Your task to perform on an android device: Open calendar and show me the fourth week of next month Image 0: 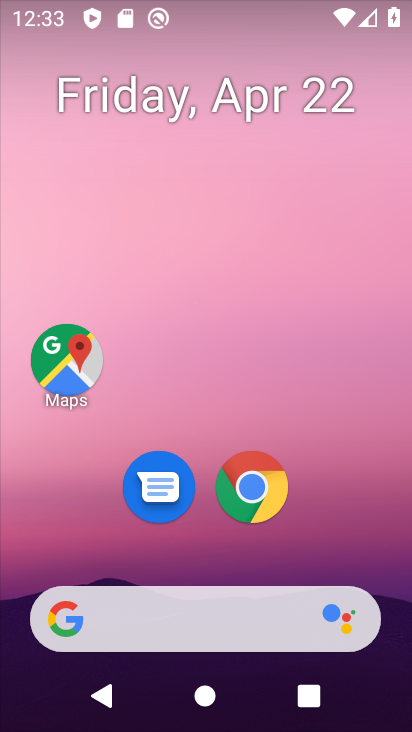
Step 0: drag from (210, 544) to (229, 146)
Your task to perform on an android device: Open calendar and show me the fourth week of next month Image 1: 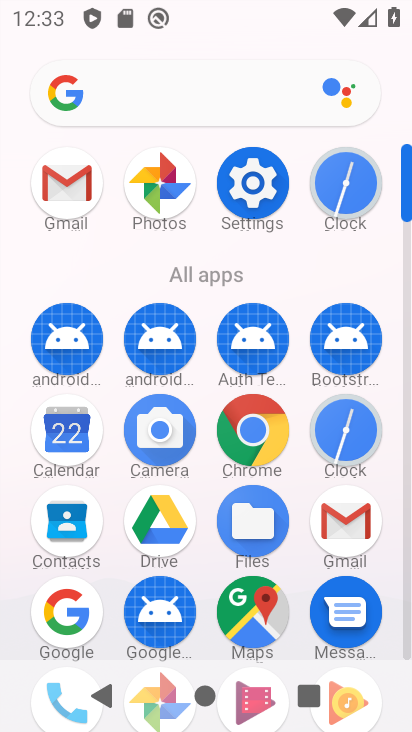
Step 1: drag from (300, 491) to (314, 250)
Your task to perform on an android device: Open calendar and show me the fourth week of next month Image 2: 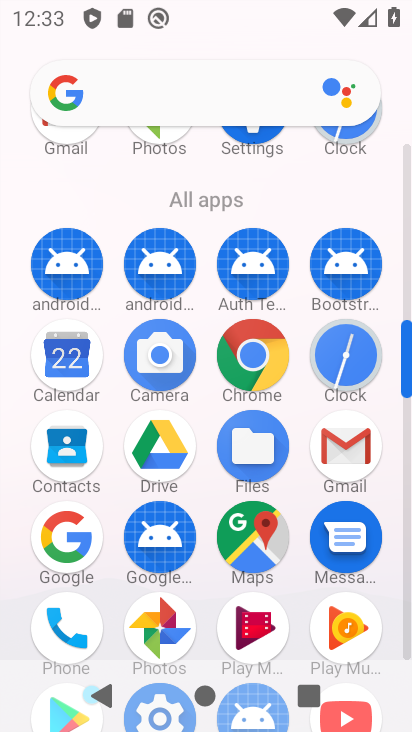
Step 2: click (52, 376)
Your task to perform on an android device: Open calendar and show me the fourth week of next month Image 3: 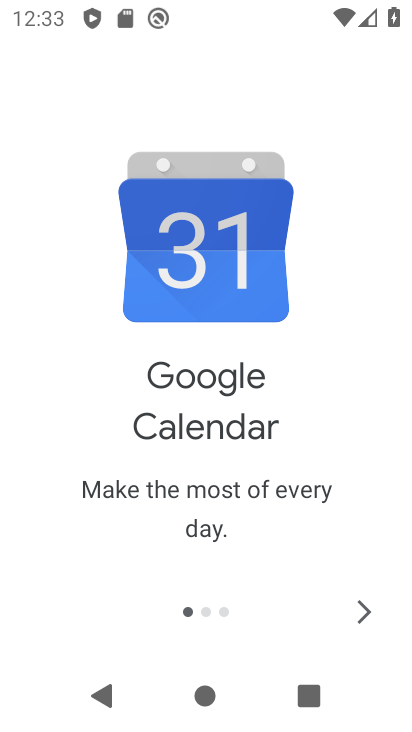
Step 3: click (361, 601)
Your task to perform on an android device: Open calendar and show me the fourth week of next month Image 4: 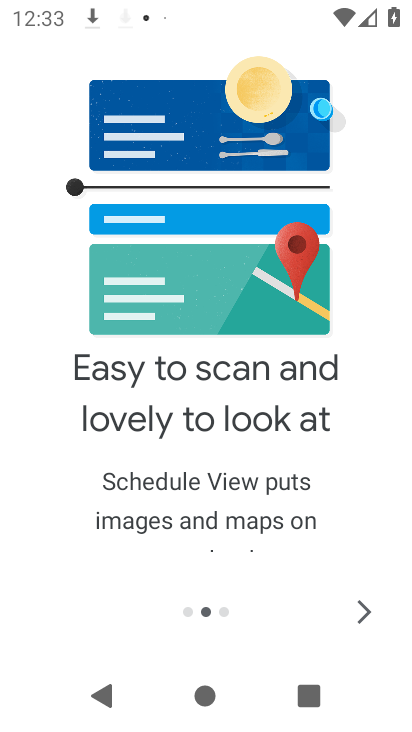
Step 4: click (361, 601)
Your task to perform on an android device: Open calendar and show me the fourth week of next month Image 5: 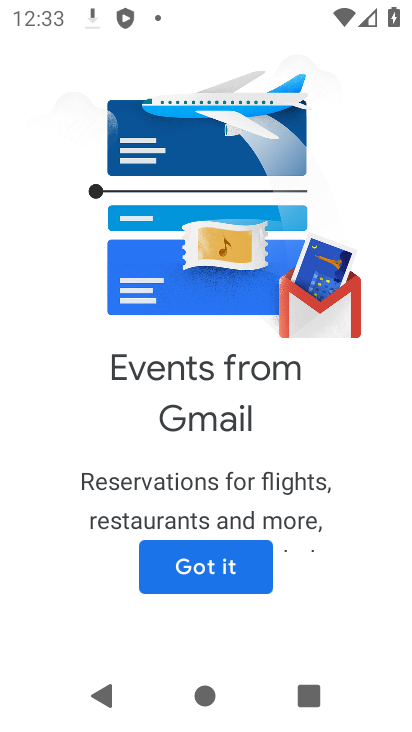
Step 5: click (247, 566)
Your task to perform on an android device: Open calendar and show me the fourth week of next month Image 6: 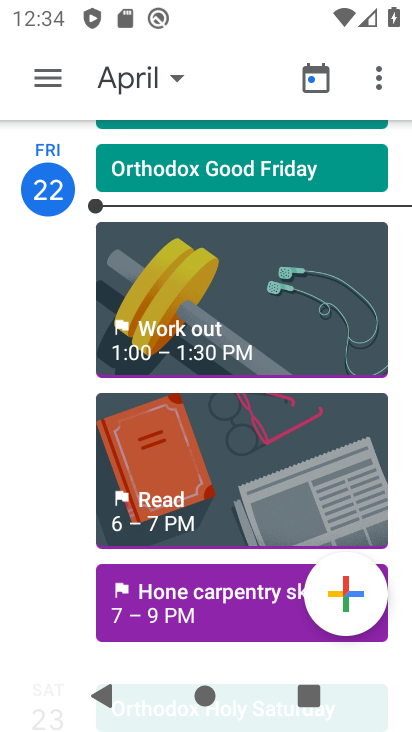
Step 6: click (142, 67)
Your task to perform on an android device: Open calendar and show me the fourth week of next month Image 7: 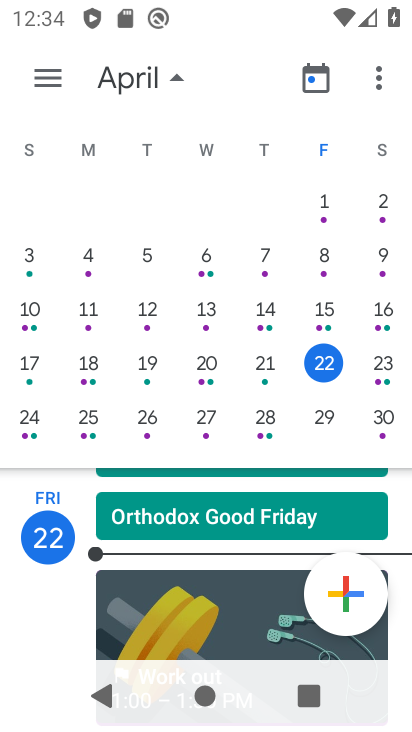
Step 7: drag from (353, 297) to (23, 258)
Your task to perform on an android device: Open calendar and show me the fourth week of next month Image 8: 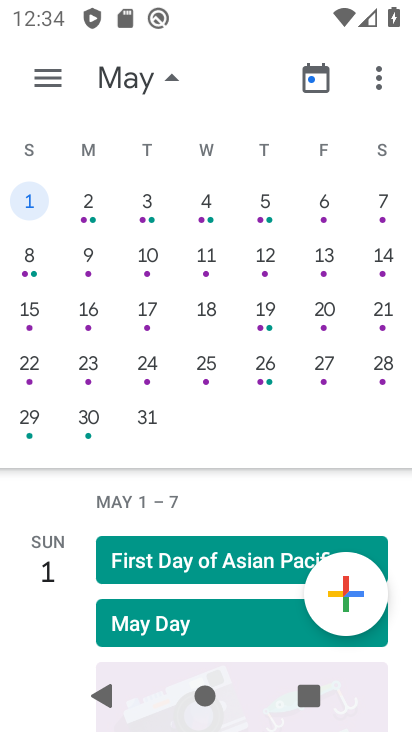
Step 8: click (87, 357)
Your task to perform on an android device: Open calendar and show me the fourth week of next month Image 9: 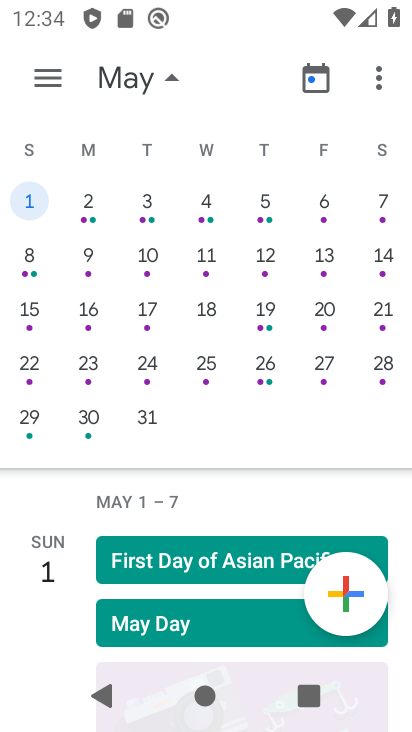
Step 9: click (88, 363)
Your task to perform on an android device: Open calendar and show me the fourth week of next month Image 10: 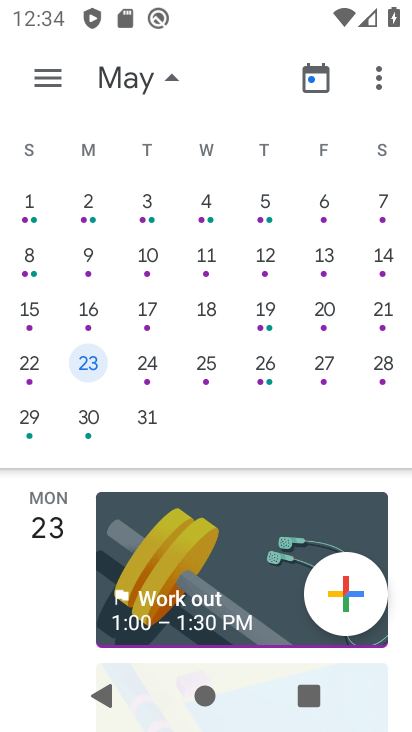
Step 10: task complete